Your task to perform on an android device: Go to notification settings Image 0: 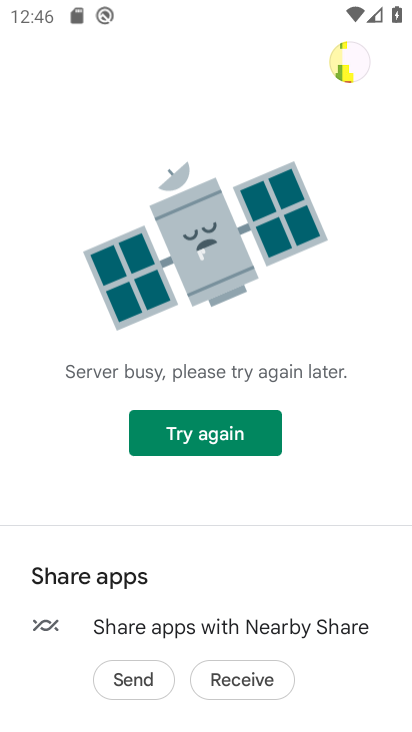
Step 0: press home button
Your task to perform on an android device: Go to notification settings Image 1: 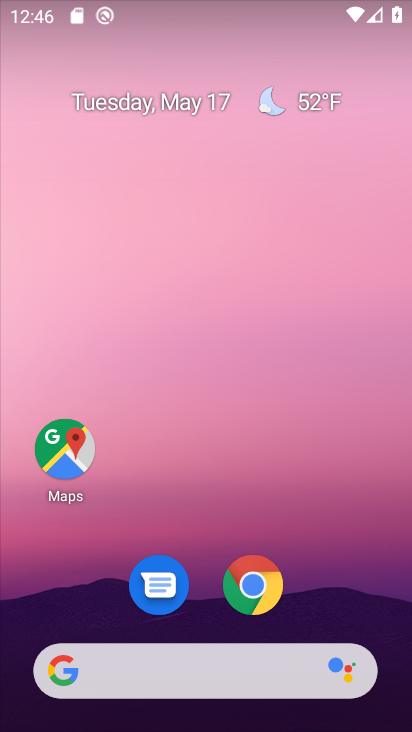
Step 1: drag from (288, 519) to (280, 46)
Your task to perform on an android device: Go to notification settings Image 2: 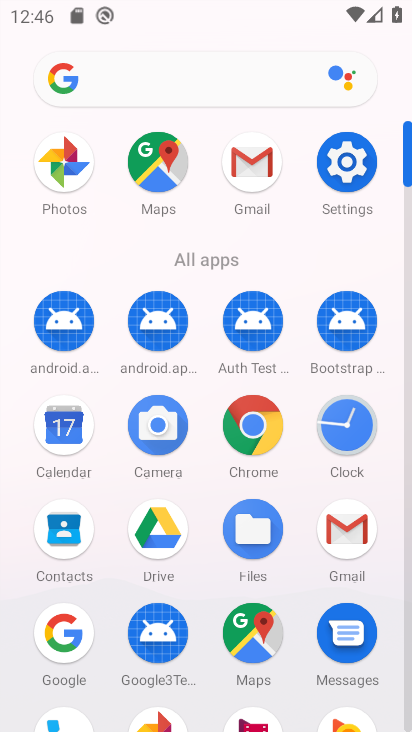
Step 2: click (330, 165)
Your task to perform on an android device: Go to notification settings Image 3: 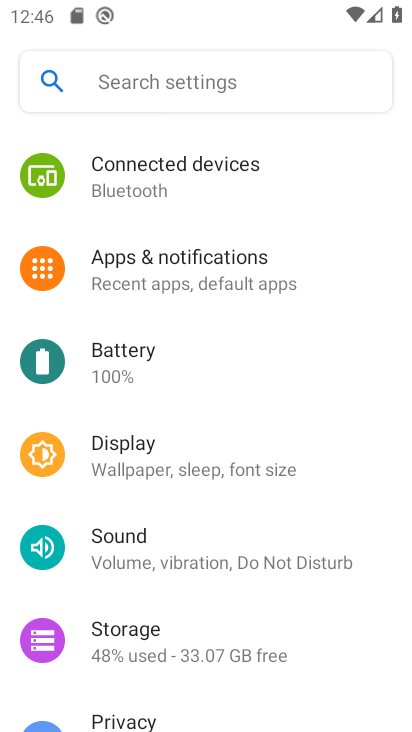
Step 3: click (258, 272)
Your task to perform on an android device: Go to notification settings Image 4: 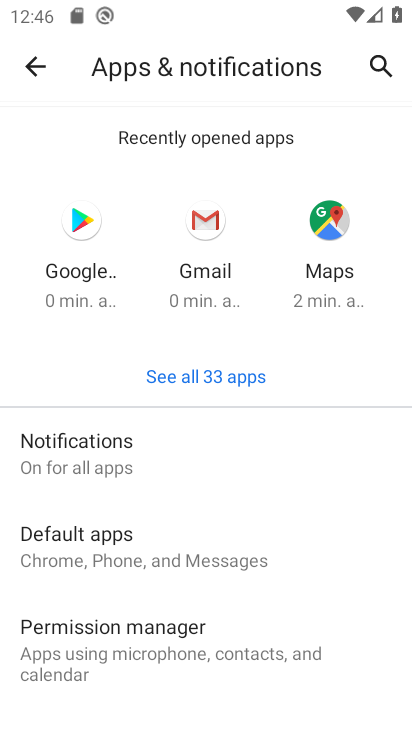
Step 4: click (217, 463)
Your task to perform on an android device: Go to notification settings Image 5: 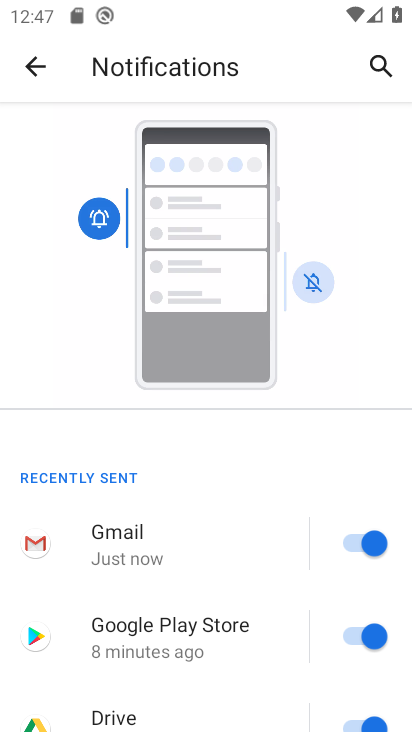
Step 5: task complete